Your task to perform on an android device: Open notification settings Image 0: 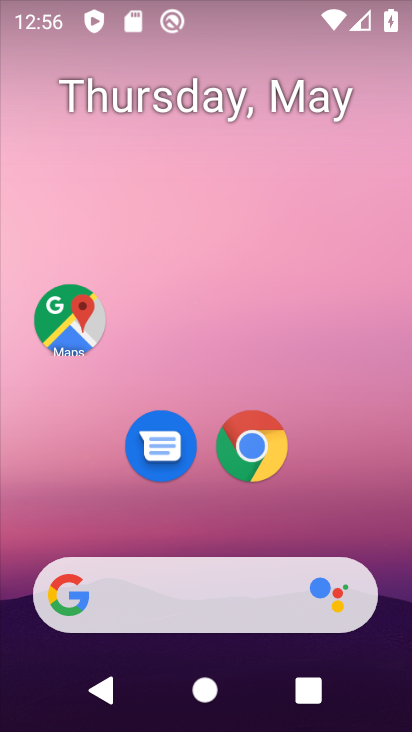
Step 0: drag from (238, 521) to (290, 9)
Your task to perform on an android device: Open notification settings Image 1: 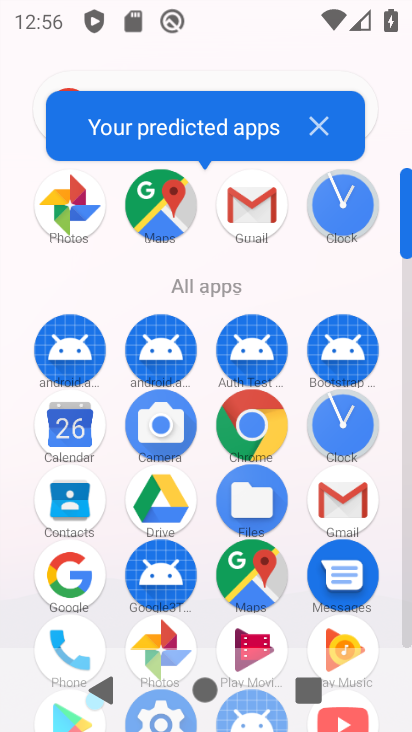
Step 1: drag from (214, 546) to (236, 222)
Your task to perform on an android device: Open notification settings Image 2: 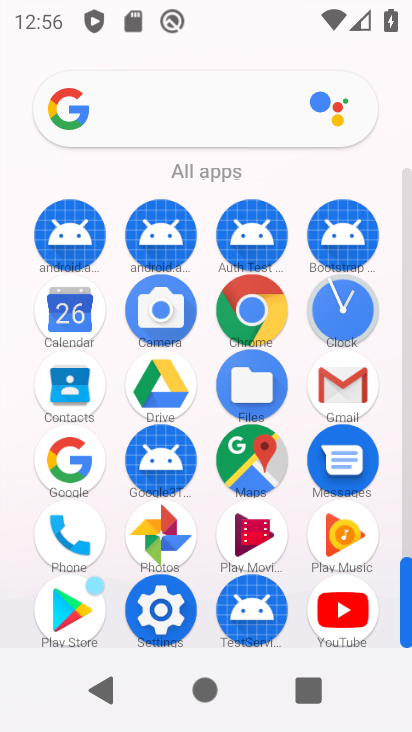
Step 2: click (172, 616)
Your task to perform on an android device: Open notification settings Image 3: 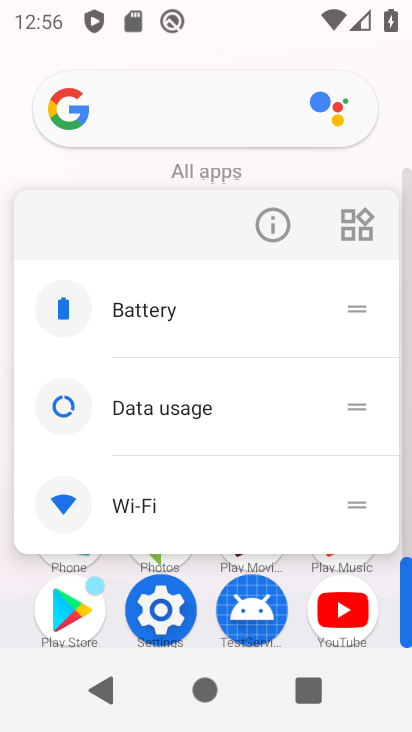
Step 3: click (176, 603)
Your task to perform on an android device: Open notification settings Image 4: 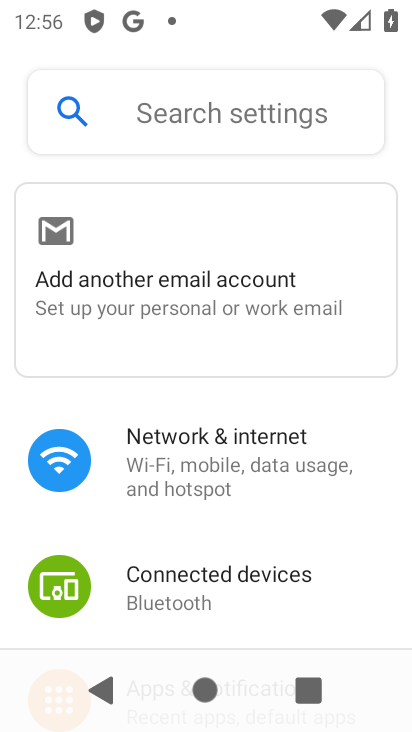
Step 4: drag from (185, 539) to (216, 343)
Your task to perform on an android device: Open notification settings Image 5: 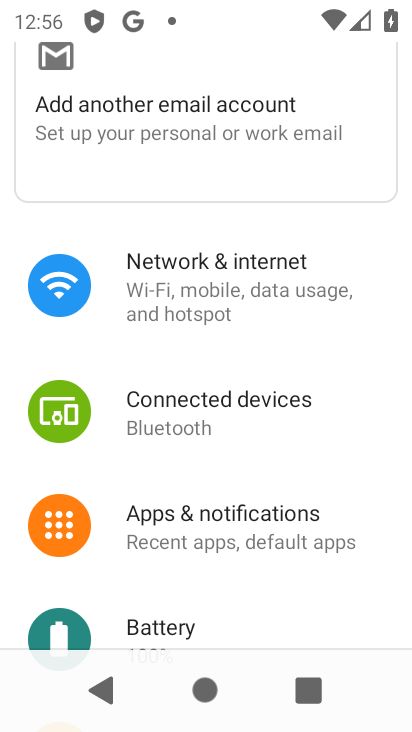
Step 5: click (251, 527)
Your task to perform on an android device: Open notification settings Image 6: 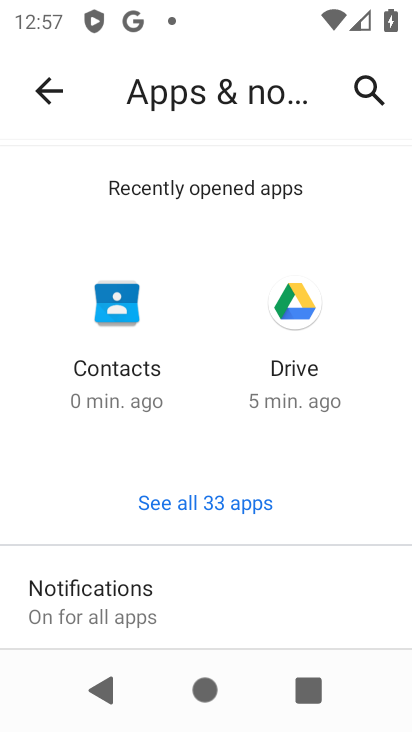
Step 6: click (119, 585)
Your task to perform on an android device: Open notification settings Image 7: 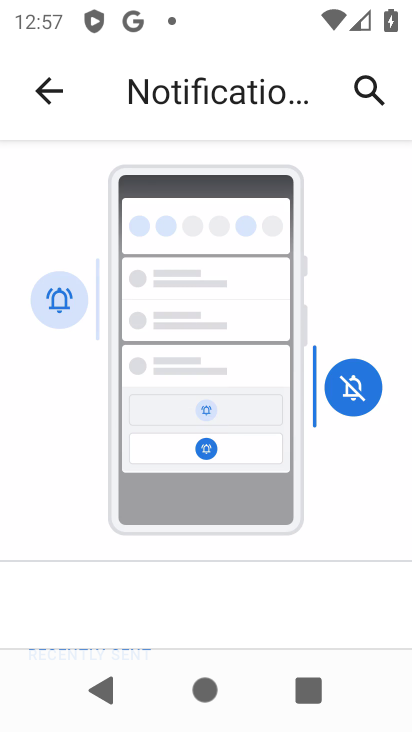
Step 7: drag from (212, 596) to (252, 306)
Your task to perform on an android device: Open notification settings Image 8: 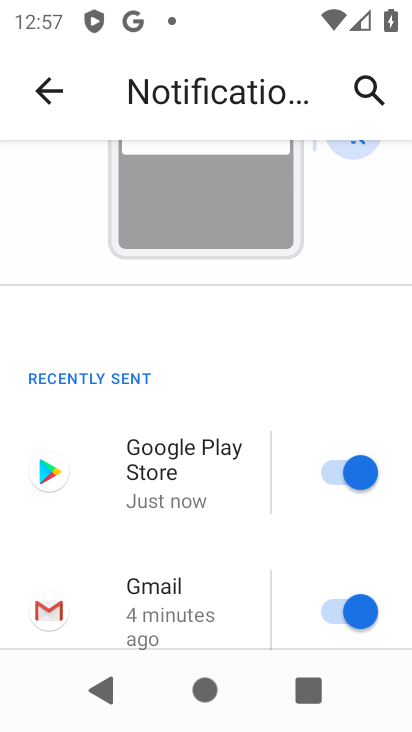
Step 8: drag from (173, 576) to (228, 188)
Your task to perform on an android device: Open notification settings Image 9: 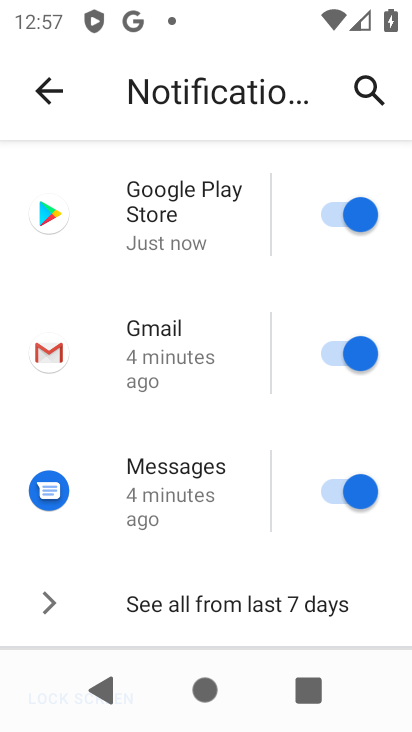
Step 9: drag from (194, 494) to (282, 123)
Your task to perform on an android device: Open notification settings Image 10: 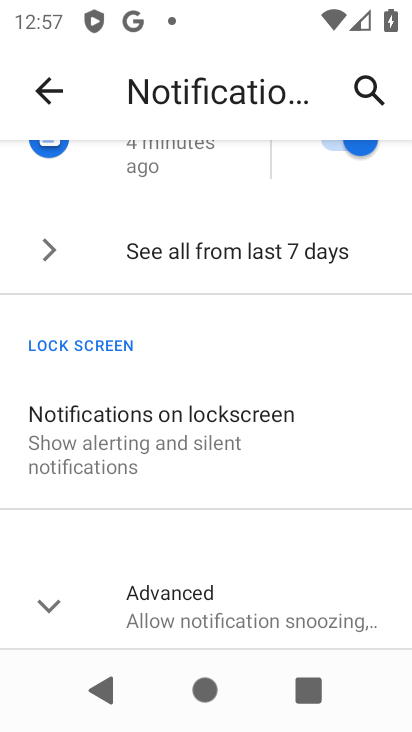
Step 10: drag from (175, 596) to (225, 333)
Your task to perform on an android device: Open notification settings Image 11: 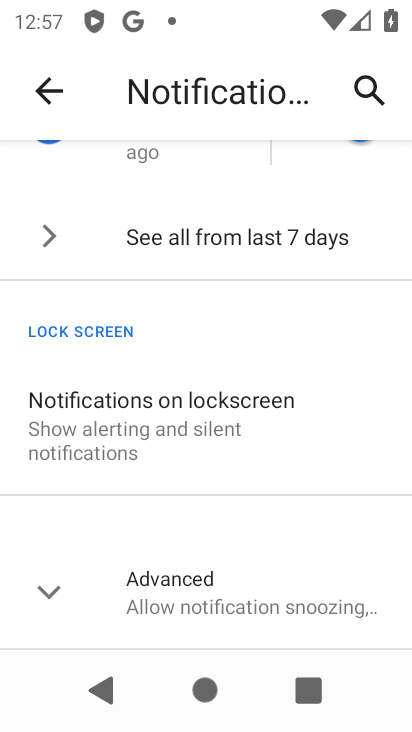
Step 11: click (171, 597)
Your task to perform on an android device: Open notification settings Image 12: 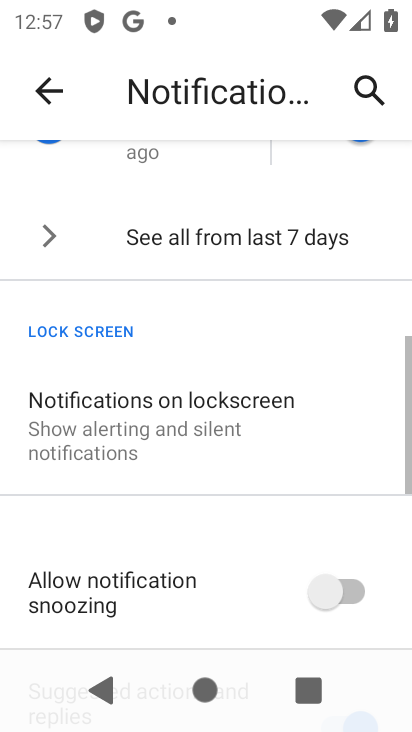
Step 12: task complete